Your task to perform on an android device: open app "Spotify" (install if not already installed) Image 0: 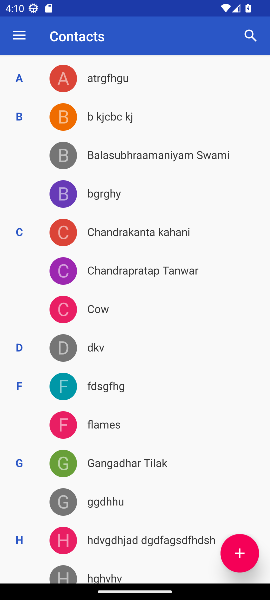
Step 0: press home button
Your task to perform on an android device: open app "Spotify" (install if not already installed) Image 1: 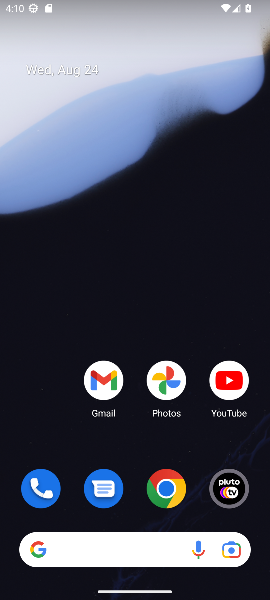
Step 1: drag from (139, 521) to (147, 18)
Your task to perform on an android device: open app "Spotify" (install if not already installed) Image 2: 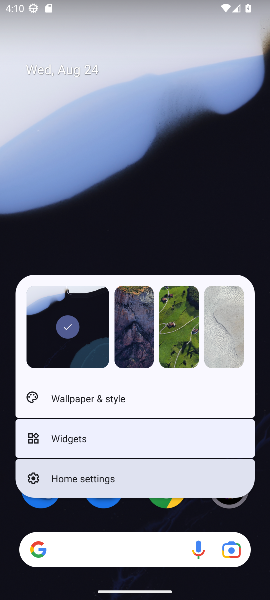
Step 2: click (167, 96)
Your task to perform on an android device: open app "Spotify" (install if not already installed) Image 3: 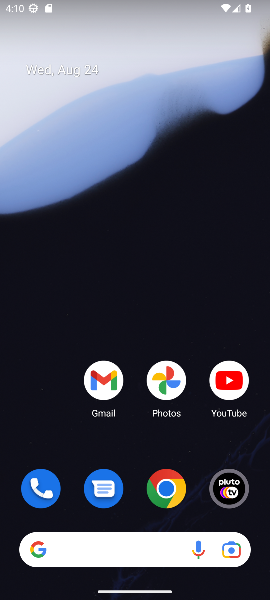
Step 3: drag from (134, 513) to (135, 125)
Your task to perform on an android device: open app "Spotify" (install if not already installed) Image 4: 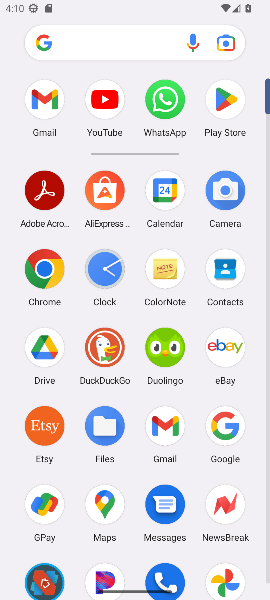
Step 4: click (222, 125)
Your task to perform on an android device: open app "Spotify" (install if not already installed) Image 5: 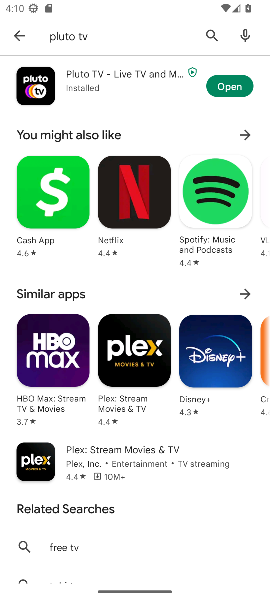
Step 5: click (212, 186)
Your task to perform on an android device: open app "Spotify" (install if not already installed) Image 6: 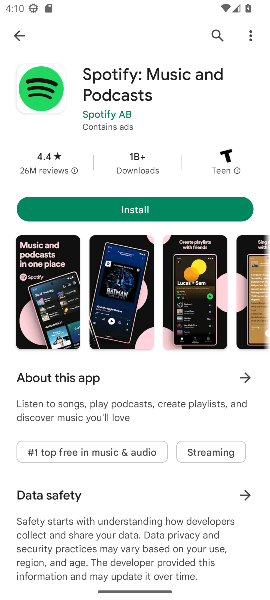
Step 6: click (128, 205)
Your task to perform on an android device: open app "Spotify" (install if not already installed) Image 7: 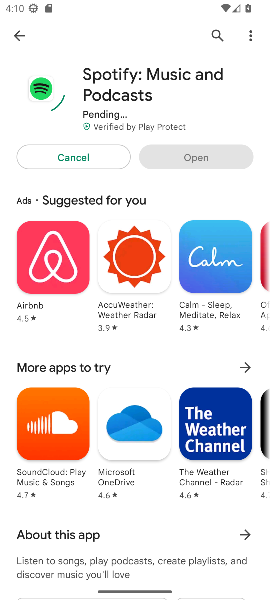
Step 7: task complete